Your task to perform on an android device: see tabs open on other devices in the chrome app Image 0: 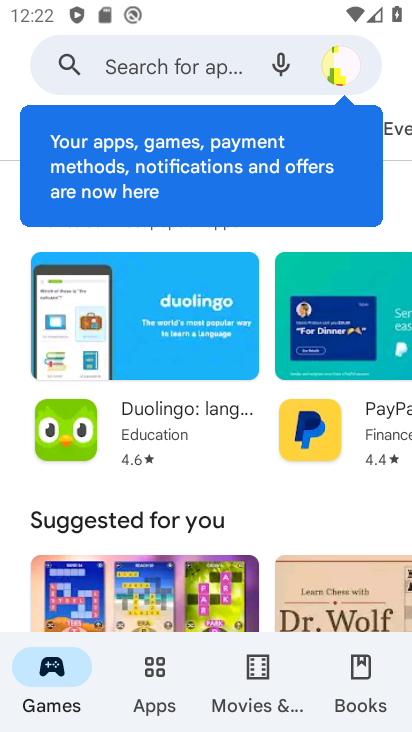
Step 0: press home button
Your task to perform on an android device: see tabs open on other devices in the chrome app Image 1: 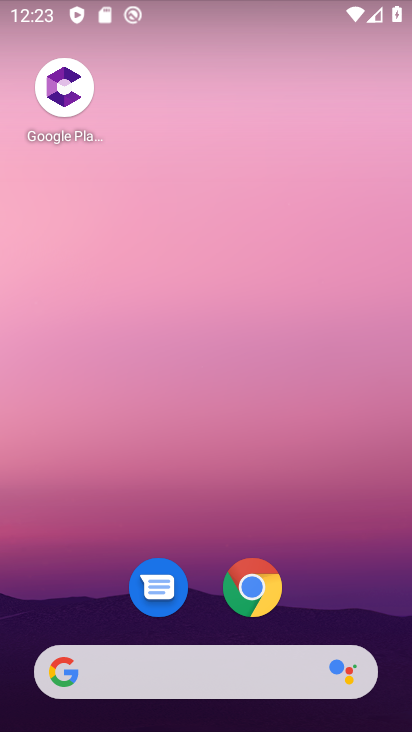
Step 1: click (256, 588)
Your task to perform on an android device: see tabs open on other devices in the chrome app Image 2: 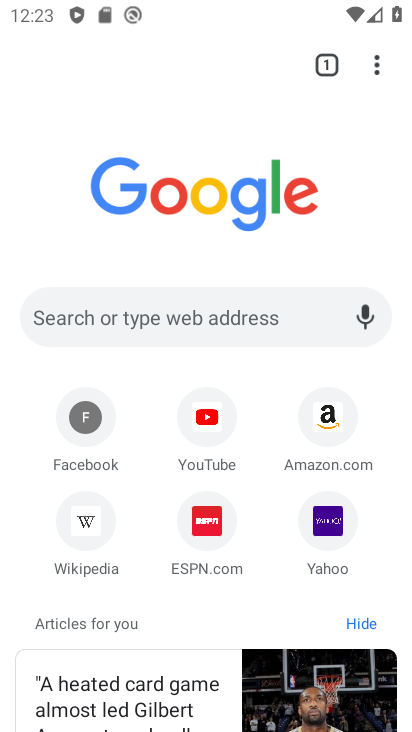
Step 2: click (376, 71)
Your task to perform on an android device: see tabs open on other devices in the chrome app Image 3: 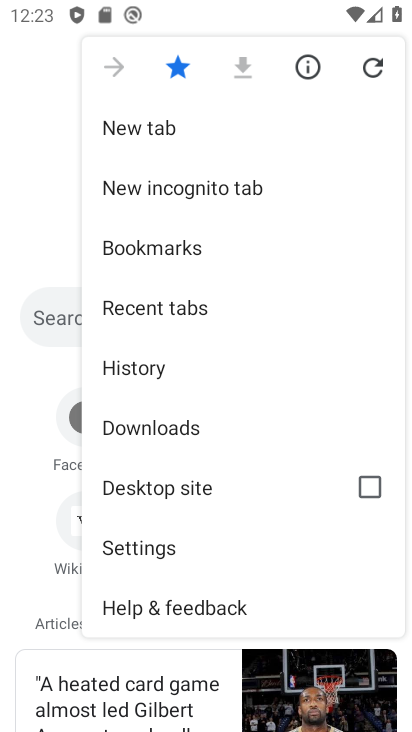
Step 3: click (138, 305)
Your task to perform on an android device: see tabs open on other devices in the chrome app Image 4: 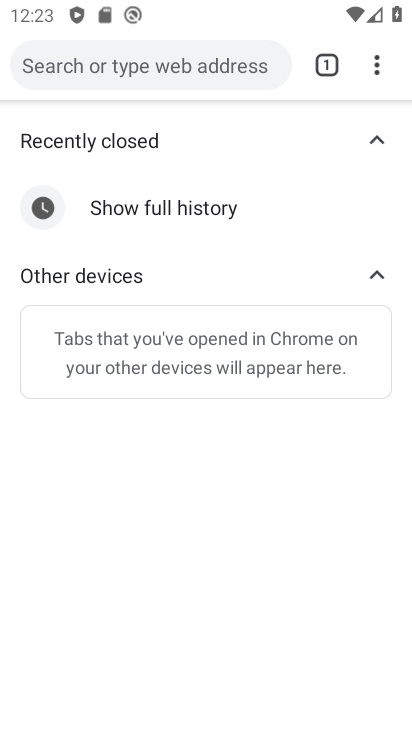
Step 4: task complete